Your task to perform on an android device: Search for pizza restaurants on Maps Image 0: 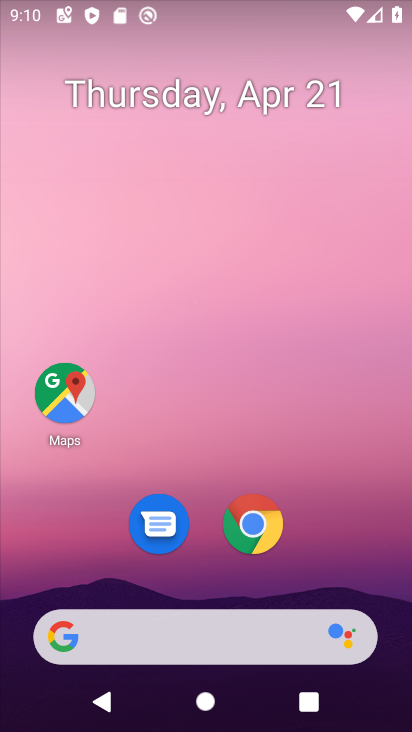
Step 0: click (65, 400)
Your task to perform on an android device: Search for pizza restaurants on Maps Image 1: 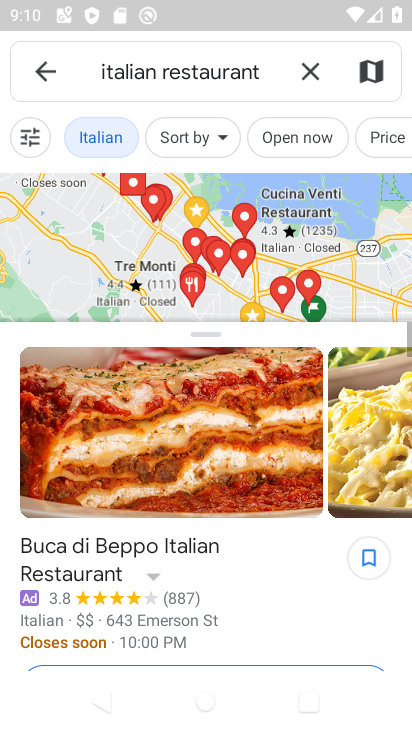
Step 1: click (316, 66)
Your task to perform on an android device: Search for pizza restaurants on Maps Image 2: 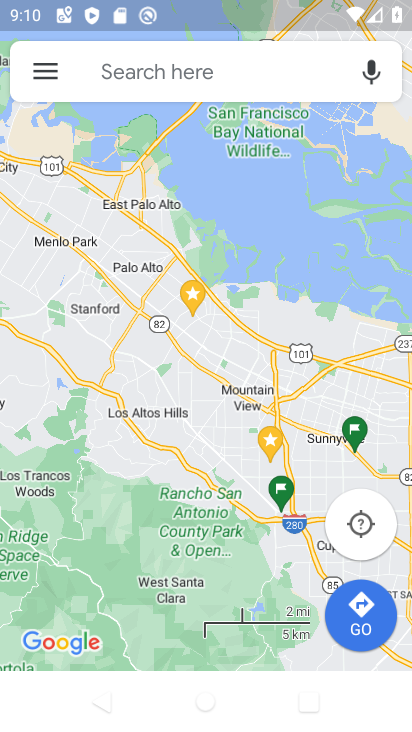
Step 2: click (286, 66)
Your task to perform on an android device: Search for pizza restaurants on Maps Image 3: 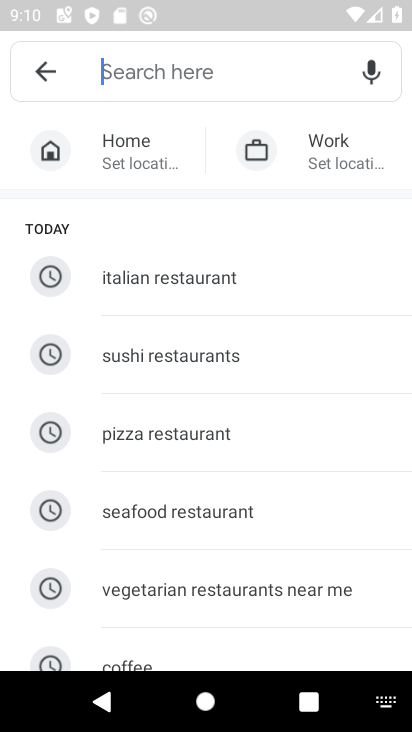
Step 3: click (214, 421)
Your task to perform on an android device: Search for pizza restaurants on Maps Image 4: 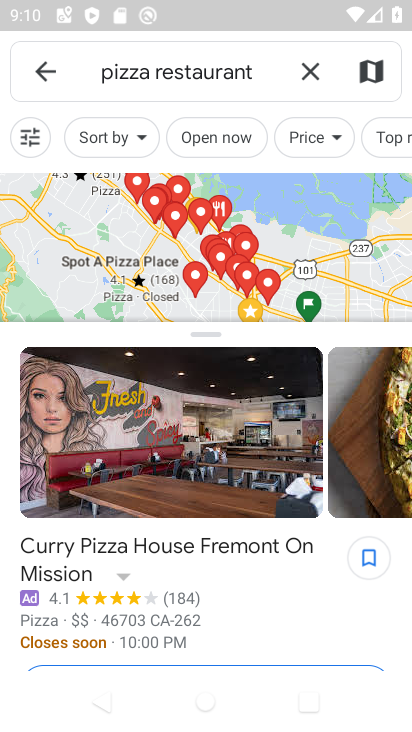
Step 4: task complete